Your task to perform on an android device: toggle show notifications on the lock screen Image 0: 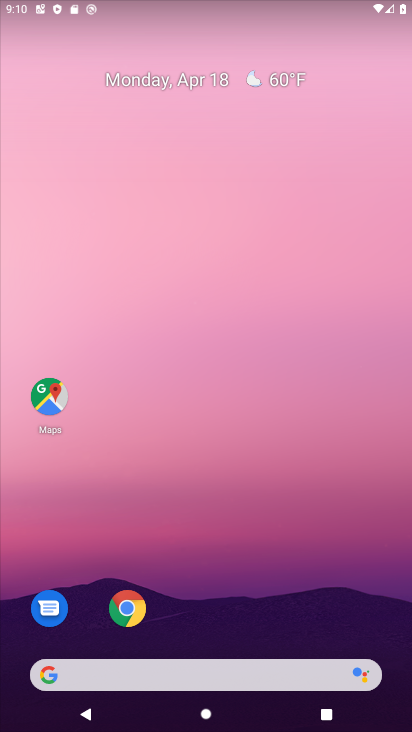
Step 0: drag from (216, 622) to (292, 117)
Your task to perform on an android device: toggle show notifications on the lock screen Image 1: 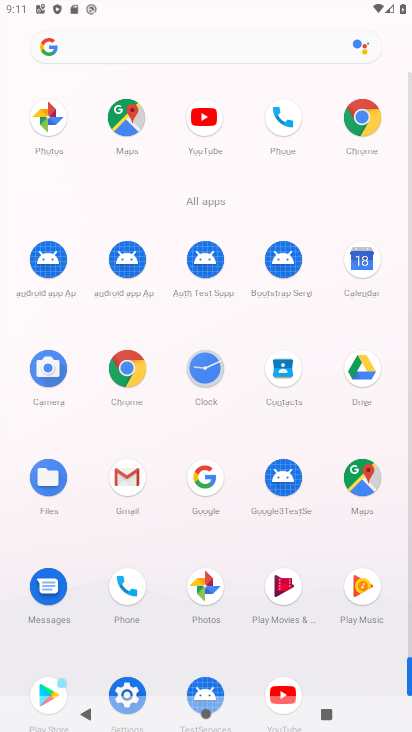
Step 1: click (116, 682)
Your task to perform on an android device: toggle show notifications on the lock screen Image 2: 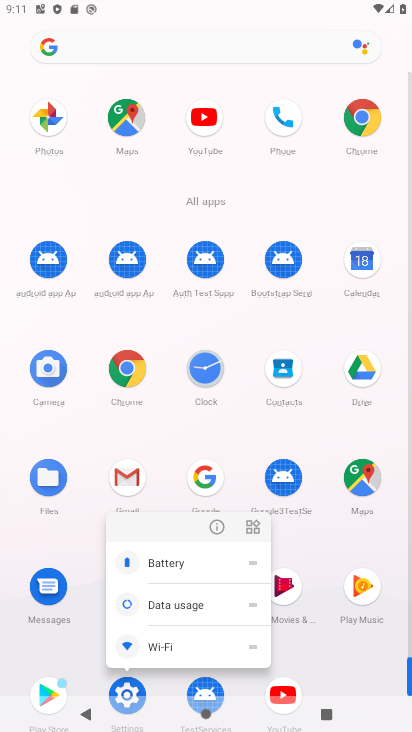
Step 2: click (213, 525)
Your task to perform on an android device: toggle show notifications on the lock screen Image 3: 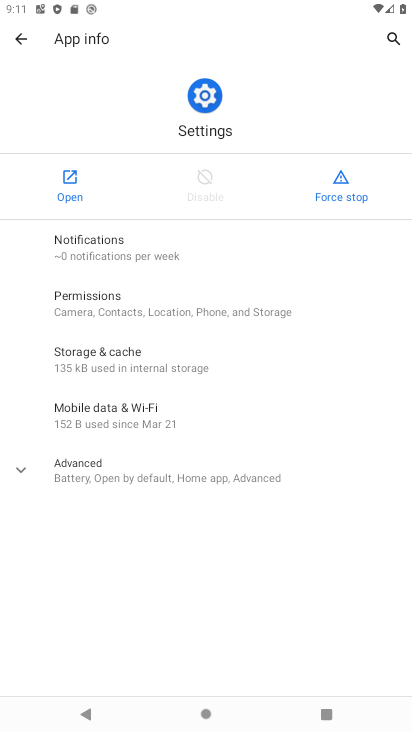
Step 3: click (63, 183)
Your task to perform on an android device: toggle show notifications on the lock screen Image 4: 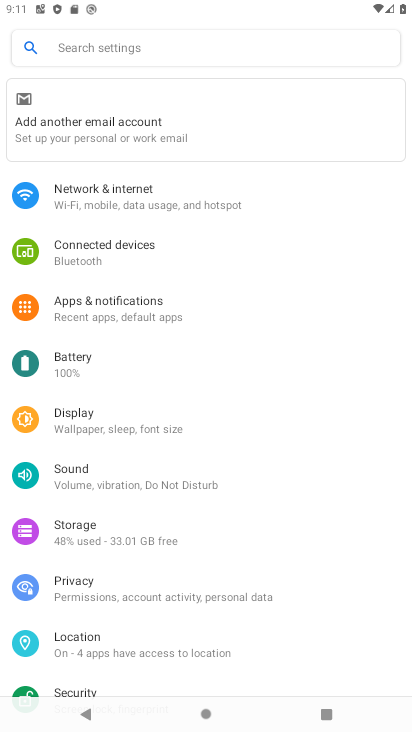
Step 4: click (120, 311)
Your task to perform on an android device: toggle show notifications on the lock screen Image 5: 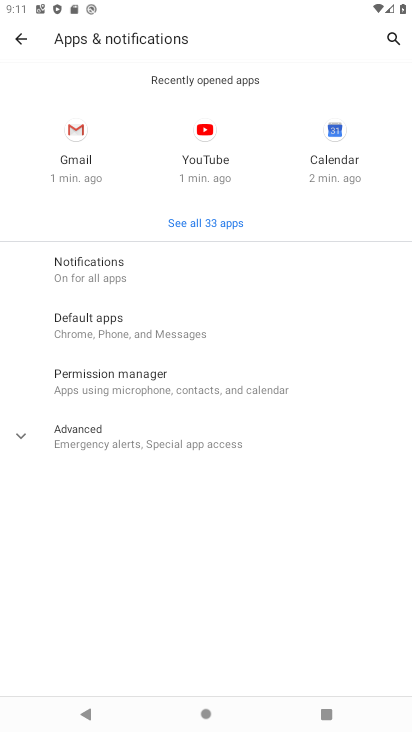
Step 5: click (195, 268)
Your task to perform on an android device: toggle show notifications on the lock screen Image 6: 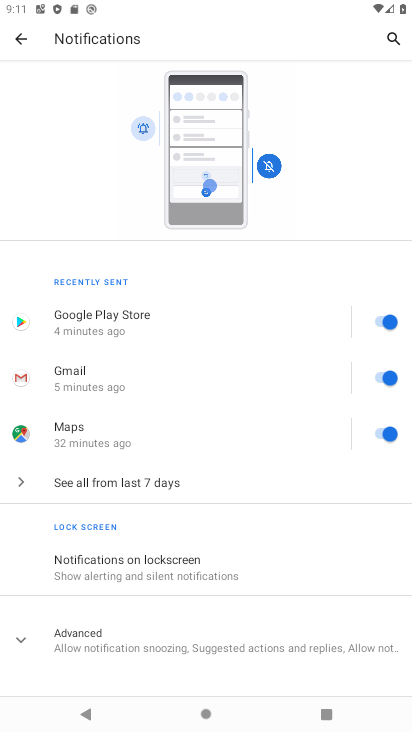
Step 6: click (163, 569)
Your task to perform on an android device: toggle show notifications on the lock screen Image 7: 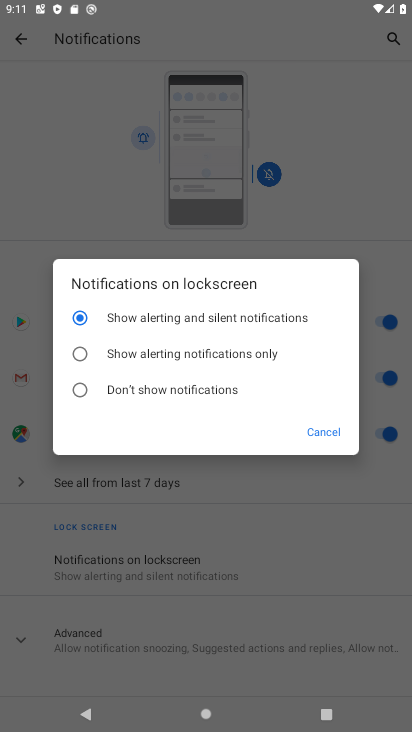
Step 7: click (193, 353)
Your task to perform on an android device: toggle show notifications on the lock screen Image 8: 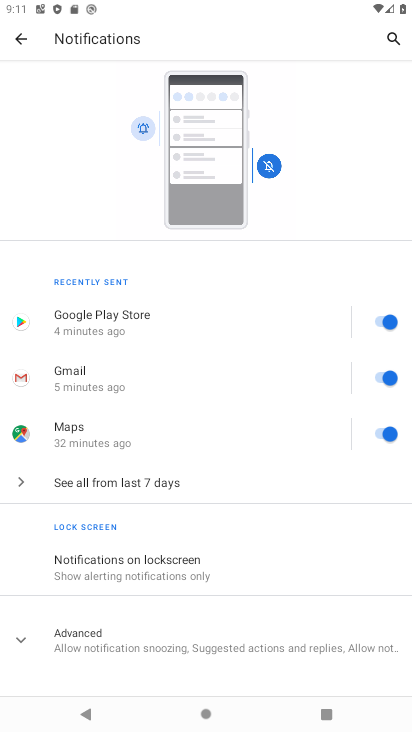
Step 8: task complete